Your task to perform on an android device: Go to location settings Image 0: 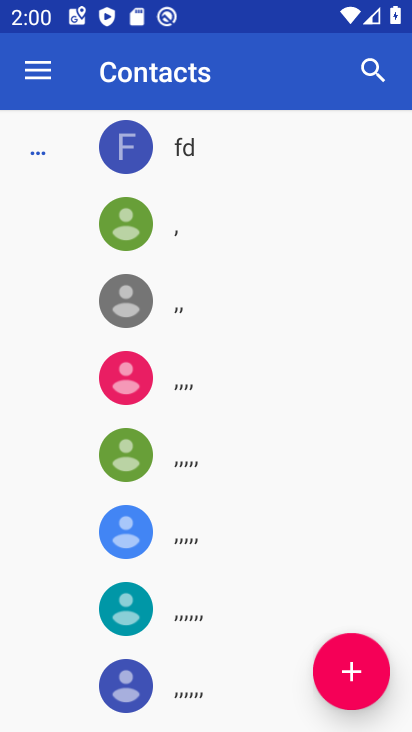
Step 0: press home button
Your task to perform on an android device: Go to location settings Image 1: 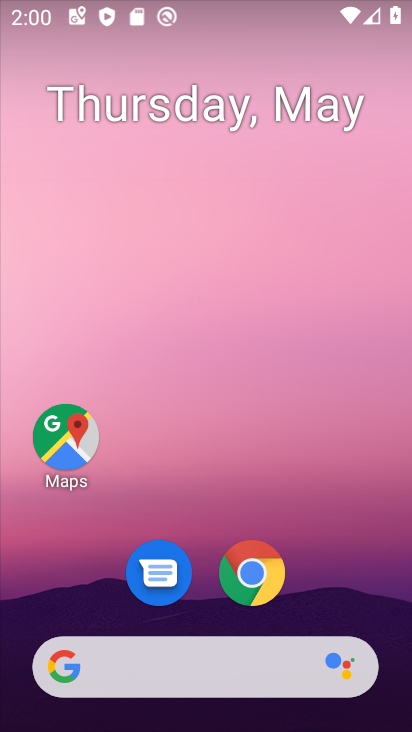
Step 1: drag from (368, 619) to (184, 254)
Your task to perform on an android device: Go to location settings Image 2: 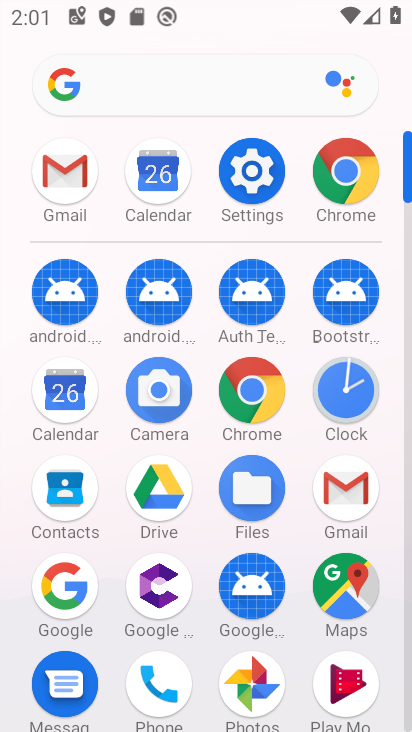
Step 2: click (249, 194)
Your task to perform on an android device: Go to location settings Image 3: 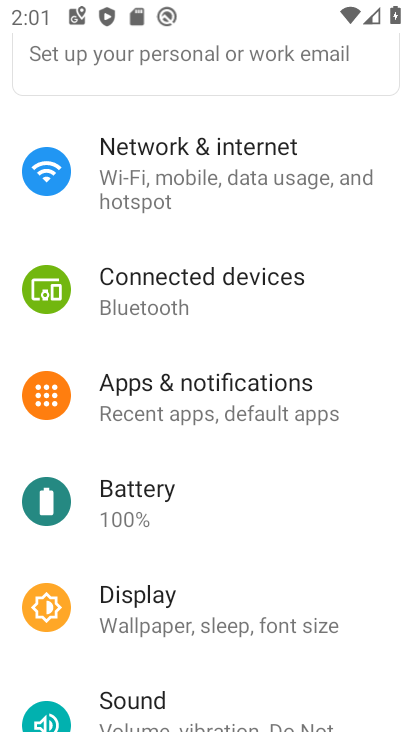
Step 3: drag from (288, 688) to (169, 288)
Your task to perform on an android device: Go to location settings Image 4: 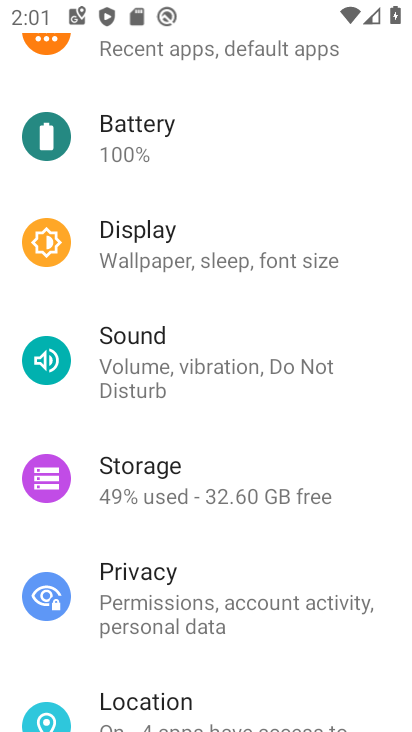
Step 4: click (254, 704)
Your task to perform on an android device: Go to location settings Image 5: 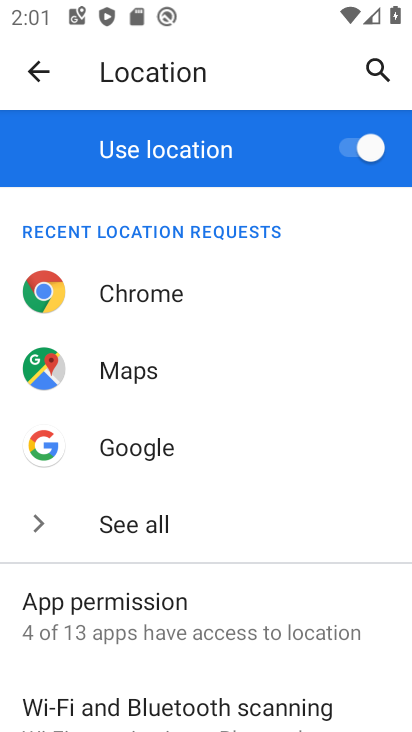
Step 5: task complete